Your task to perform on an android device: check the backup settings in the google photos Image 0: 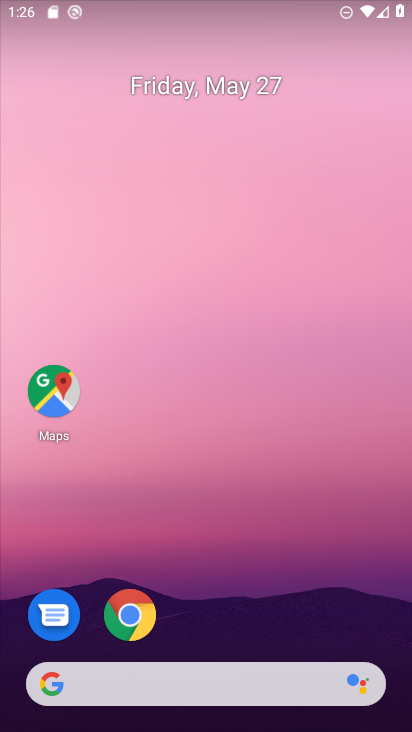
Step 0: drag from (230, 634) to (270, 318)
Your task to perform on an android device: check the backup settings in the google photos Image 1: 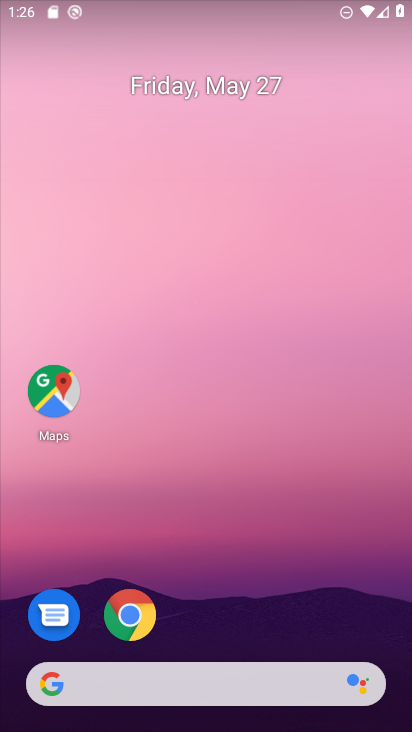
Step 1: drag from (233, 631) to (275, 63)
Your task to perform on an android device: check the backup settings in the google photos Image 2: 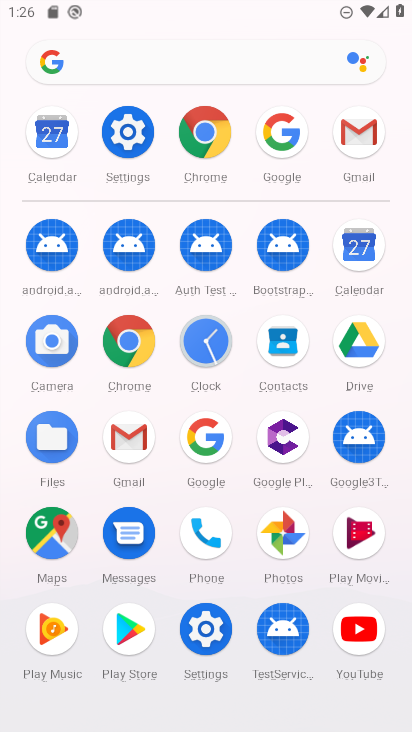
Step 2: click (277, 542)
Your task to perform on an android device: check the backup settings in the google photos Image 3: 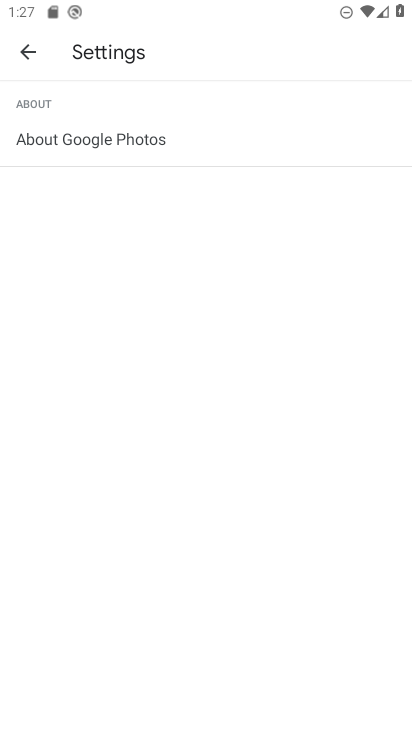
Step 3: press back button
Your task to perform on an android device: check the backup settings in the google photos Image 4: 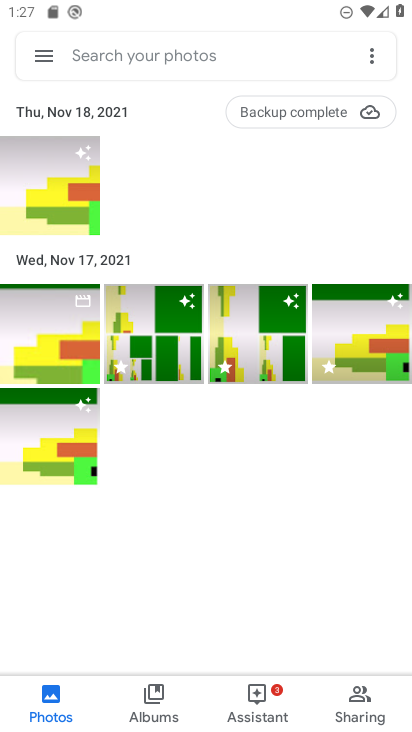
Step 4: click (33, 54)
Your task to perform on an android device: check the backup settings in the google photos Image 5: 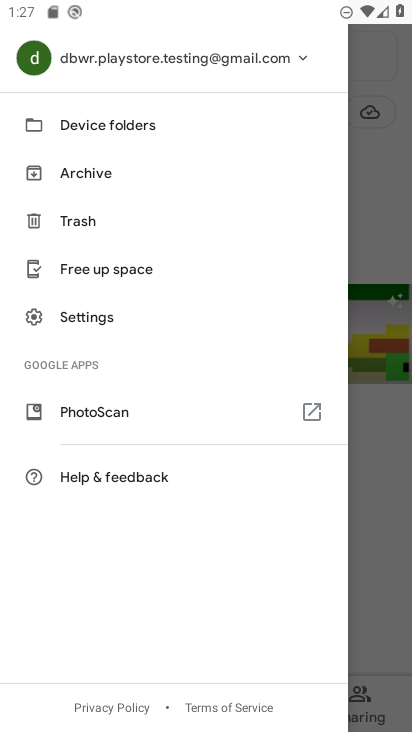
Step 5: click (119, 314)
Your task to perform on an android device: check the backup settings in the google photos Image 6: 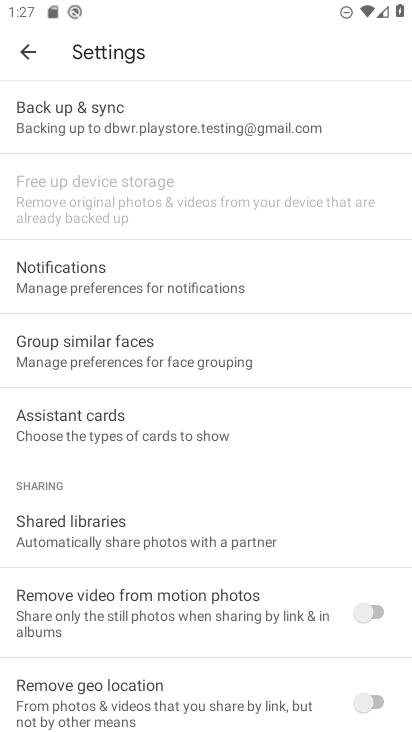
Step 6: click (230, 138)
Your task to perform on an android device: check the backup settings in the google photos Image 7: 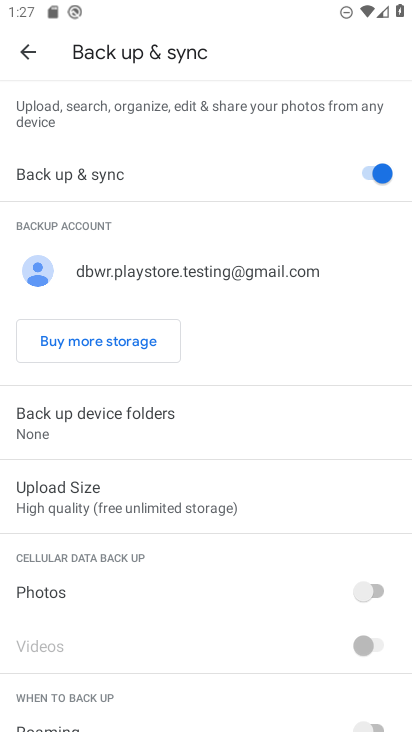
Step 7: task complete